Your task to perform on an android device: change text size in settings app Image 0: 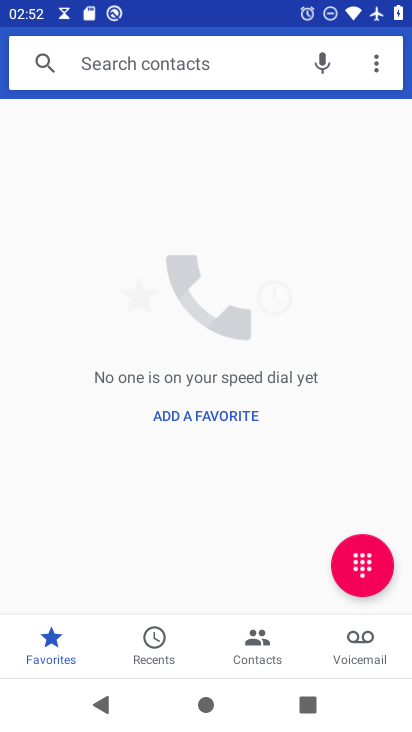
Step 0: press home button
Your task to perform on an android device: change text size in settings app Image 1: 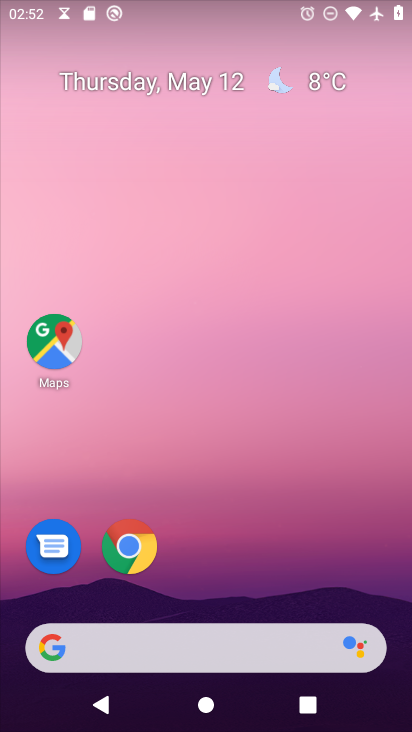
Step 1: drag from (155, 646) to (221, 173)
Your task to perform on an android device: change text size in settings app Image 2: 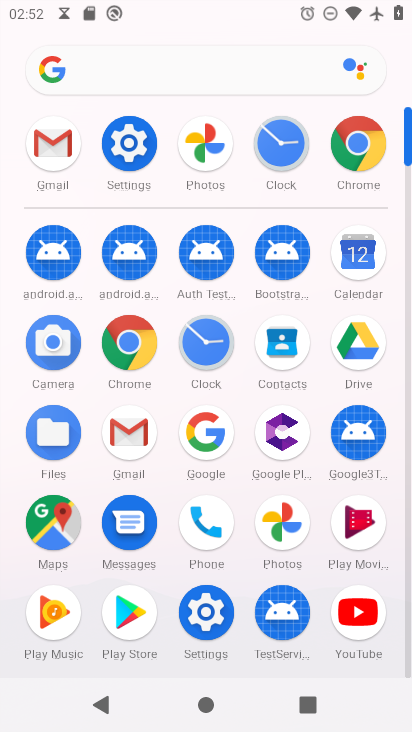
Step 2: click (123, 155)
Your task to perform on an android device: change text size in settings app Image 3: 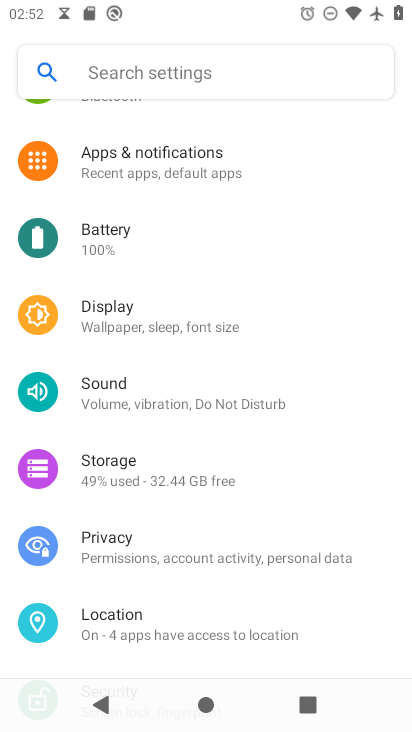
Step 3: click (189, 333)
Your task to perform on an android device: change text size in settings app Image 4: 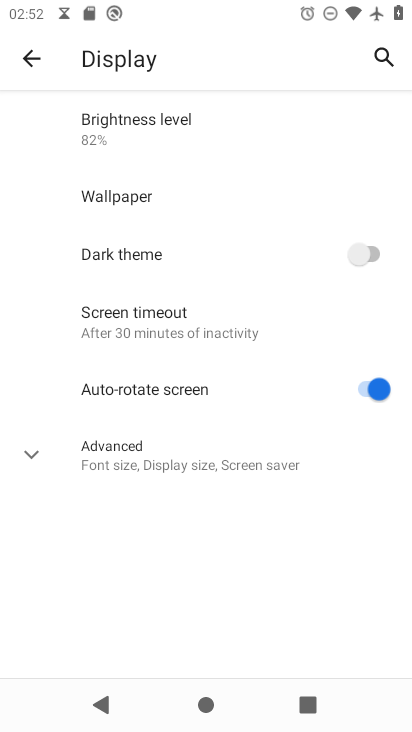
Step 4: click (132, 456)
Your task to perform on an android device: change text size in settings app Image 5: 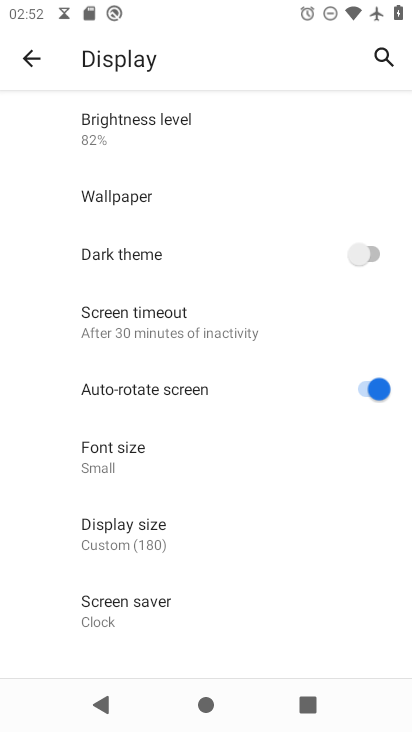
Step 5: click (120, 459)
Your task to perform on an android device: change text size in settings app Image 6: 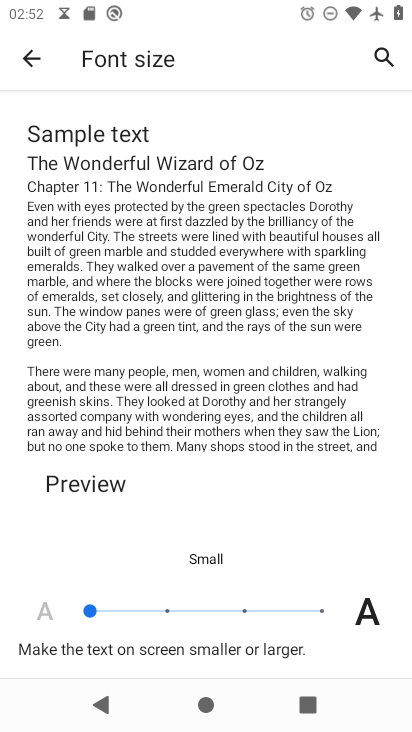
Step 6: click (168, 610)
Your task to perform on an android device: change text size in settings app Image 7: 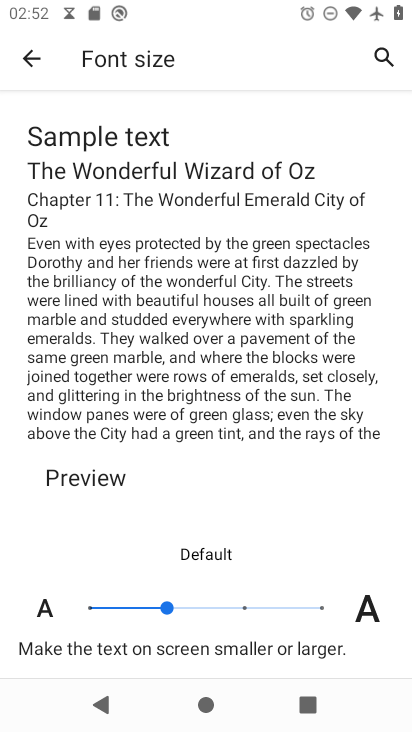
Step 7: task complete